Your task to perform on an android device: Set the phone to "Do not disturb". Image 0: 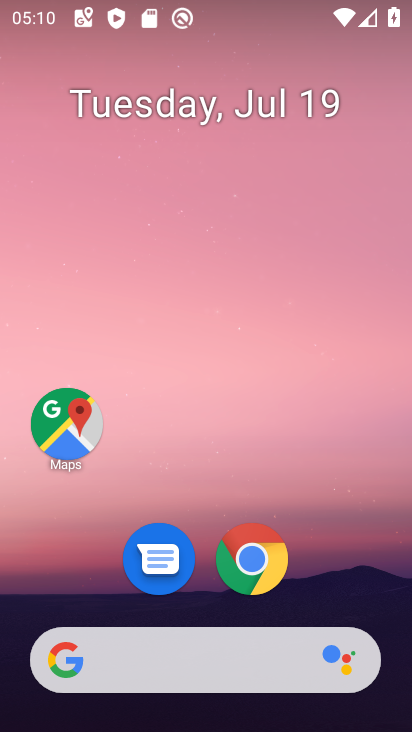
Step 0: drag from (180, 12) to (193, 625)
Your task to perform on an android device: Set the phone to "Do not disturb". Image 1: 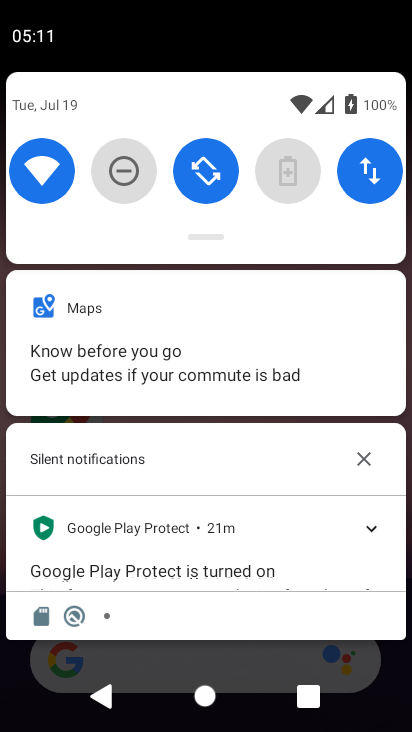
Step 1: click (123, 158)
Your task to perform on an android device: Set the phone to "Do not disturb". Image 2: 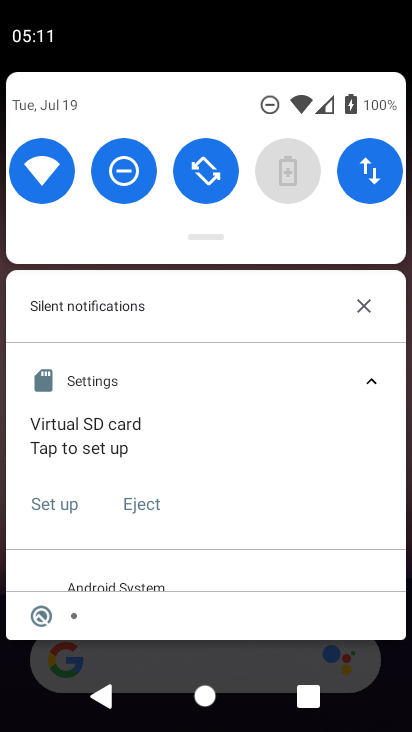
Step 2: task complete